Your task to perform on an android device: Open sound settings Image 0: 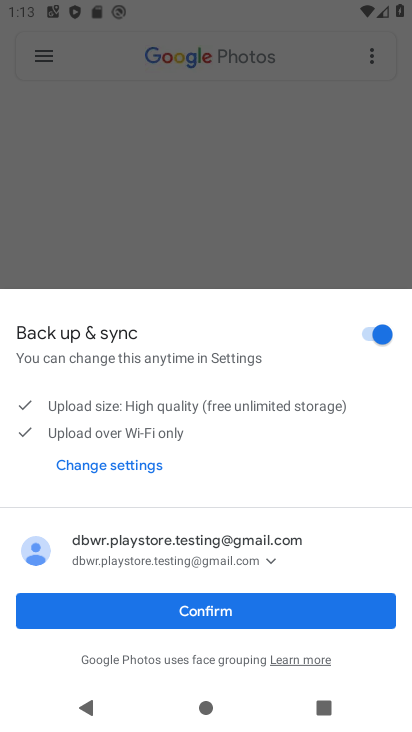
Step 0: press home button
Your task to perform on an android device: Open sound settings Image 1: 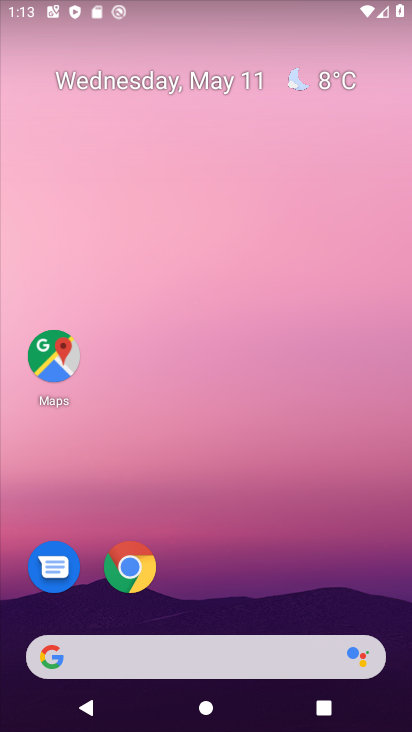
Step 1: drag from (276, 511) to (234, 119)
Your task to perform on an android device: Open sound settings Image 2: 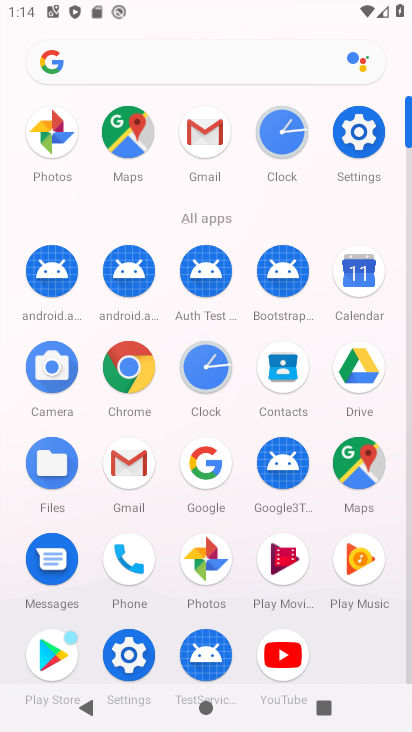
Step 2: click (359, 148)
Your task to perform on an android device: Open sound settings Image 3: 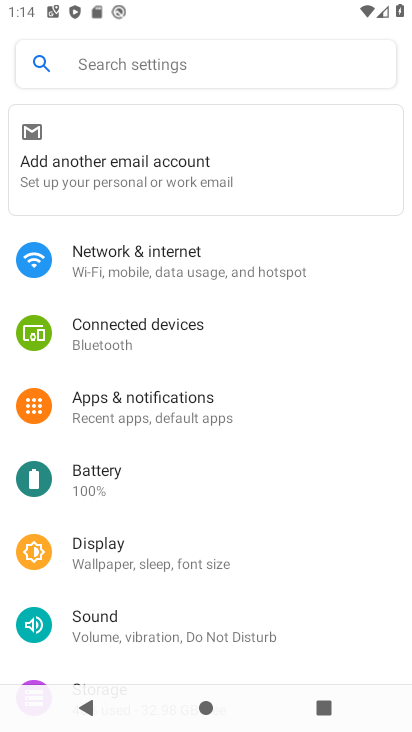
Step 3: drag from (215, 597) to (181, 377)
Your task to perform on an android device: Open sound settings Image 4: 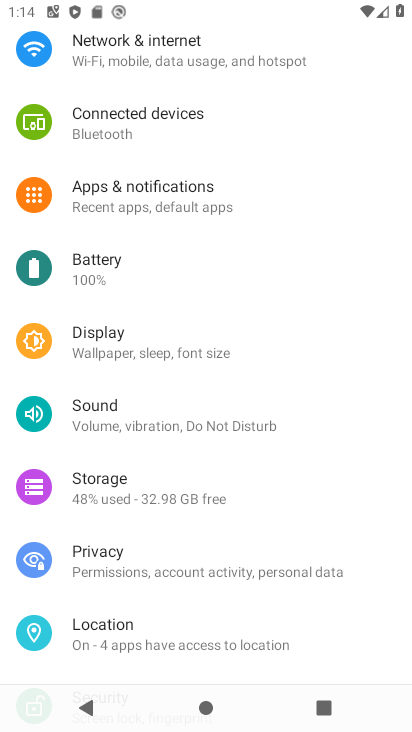
Step 4: drag from (217, 580) to (182, 415)
Your task to perform on an android device: Open sound settings Image 5: 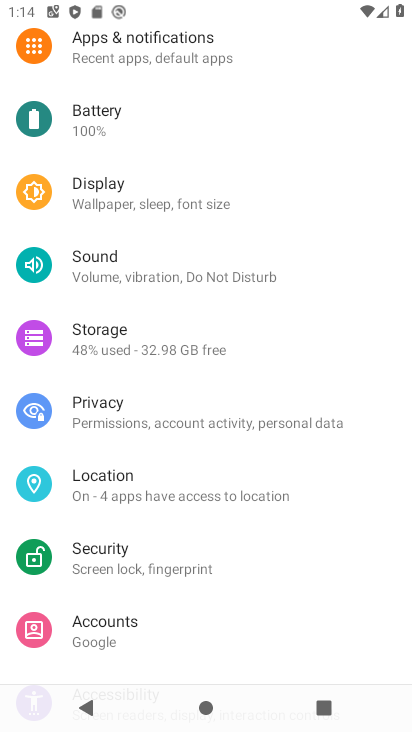
Step 5: click (115, 274)
Your task to perform on an android device: Open sound settings Image 6: 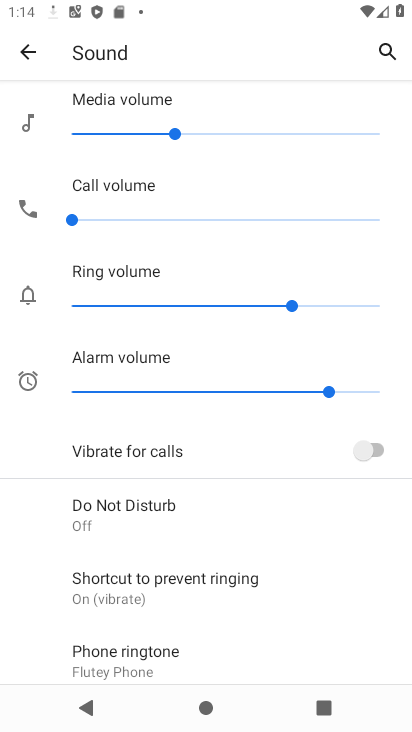
Step 6: task complete